Your task to perform on an android device: turn off translation in the chrome app Image 0: 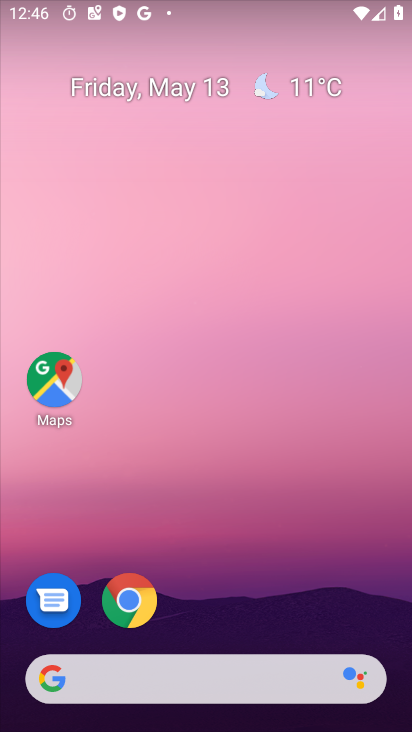
Step 0: drag from (169, 620) to (280, 317)
Your task to perform on an android device: turn off translation in the chrome app Image 1: 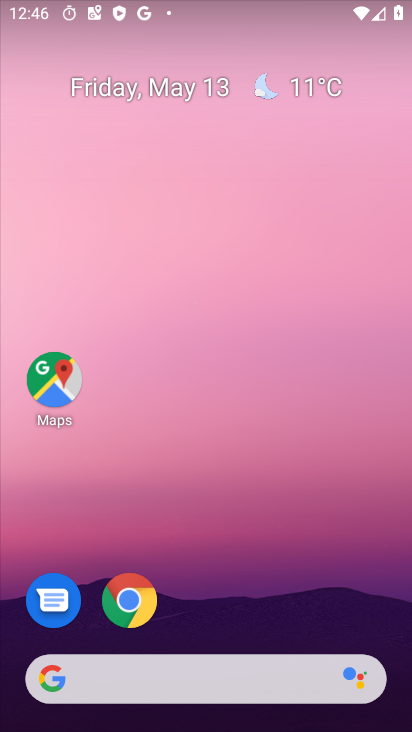
Step 1: drag from (257, 592) to (269, 279)
Your task to perform on an android device: turn off translation in the chrome app Image 2: 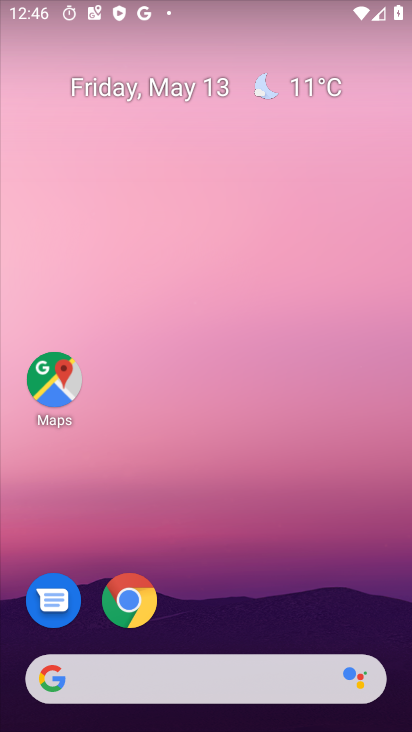
Step 2: drag from (37, 322) to (117, 23)
Your task to perform on an android device: turn off translation in the chrome app Image 3: 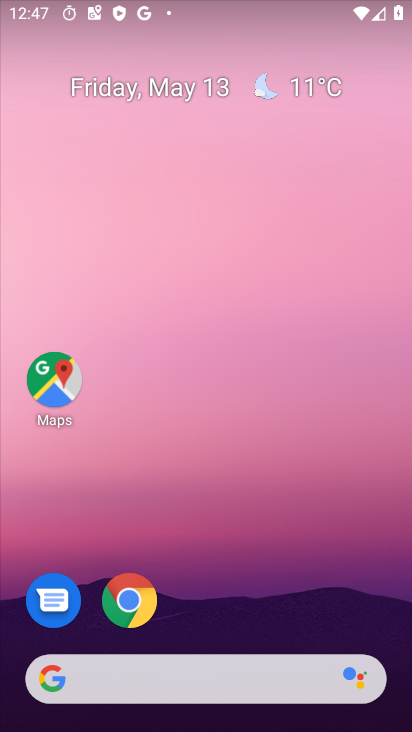
Step 3: press home button
Your task to perform on an android device: turn off translation in the chrome app Image 4: 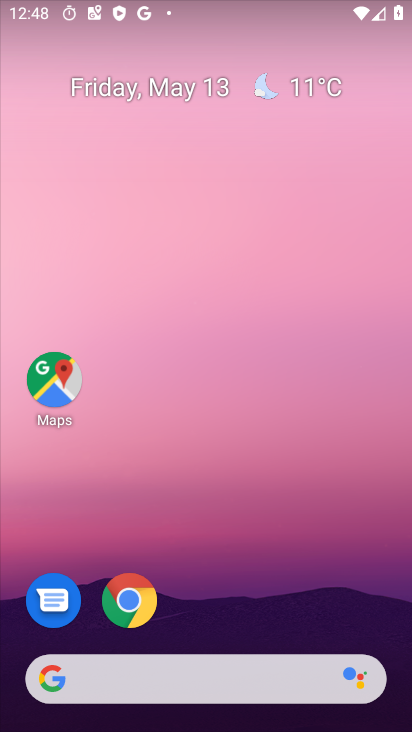
Step 4: drag from (149, 213) to (197, 122)
Your task to perform on an android device: turn off translation in the chrome app Image 5: 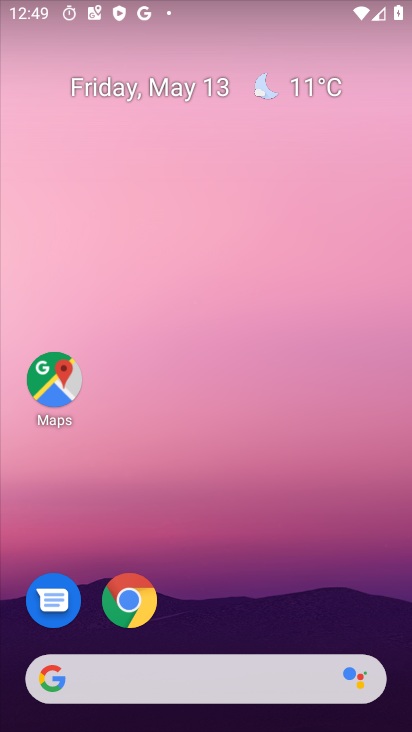
Step 5: drag from (197, 568) to (240, 278)
Your task to perform on an android device: turn off translation in the chrome app Image 6: 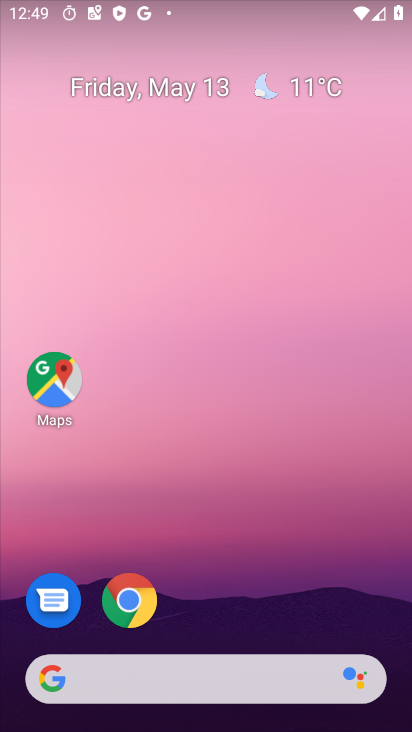
Step 6: click (127, 598)
Your task to perform on an android device: turn off translation in the chrome app Image 7: 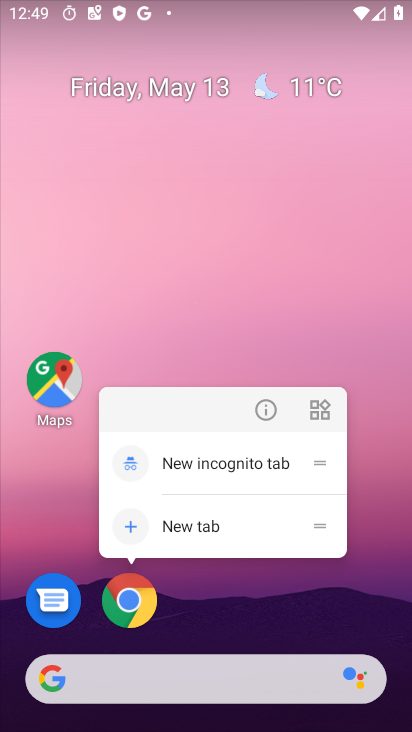
Step 7: click (179, 518)
Your task to perform on an android device: turn off translation in the chrome app Image 8: 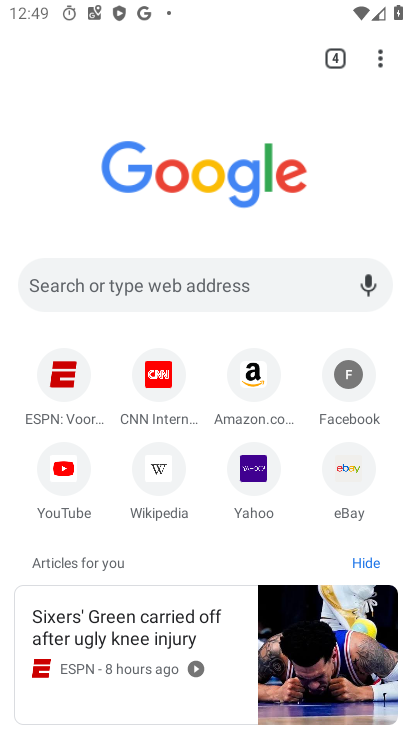
Step 8: click (390, 73)
Your task to perform on an android device: turn off translation in the chrome app Image 9: 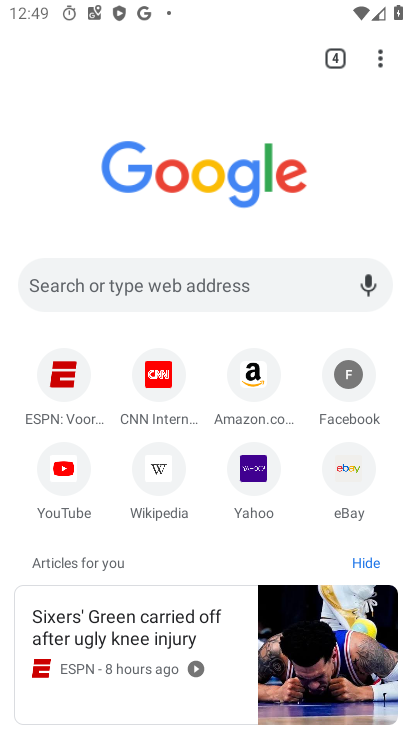
Step 9: click (379, 70)
Your task to perform on an android device: turn off translation in the chrome app Image 10: 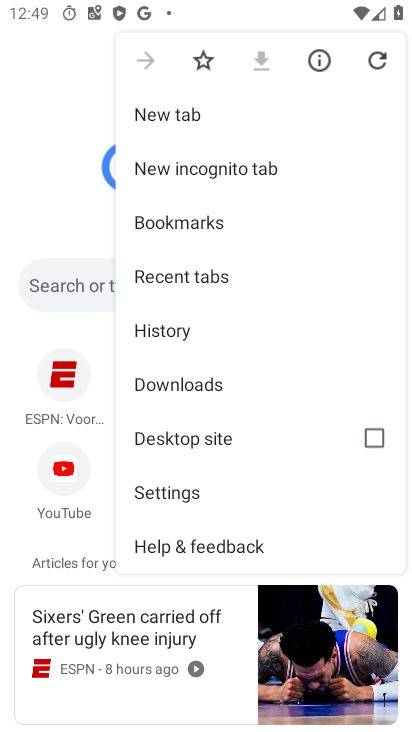
Step 10: click (190, 476)
Your task to perform on an android device: turn off translation in the chrome app Image 11: 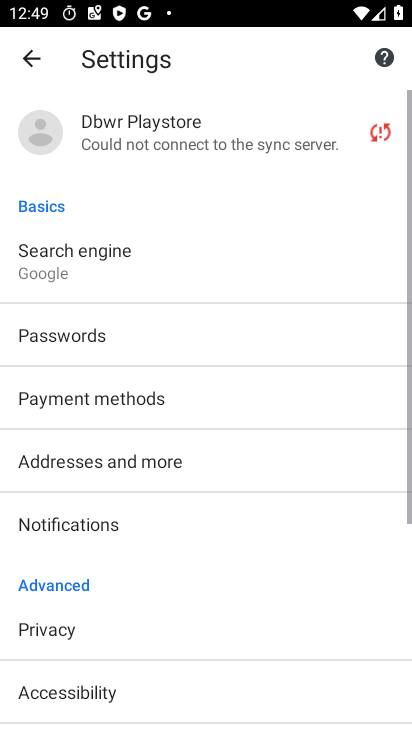
Step 11: drag from (208, 656) to (245, 148)
Your task to perform on an android device: turn off translation in the chrome app Image 12: 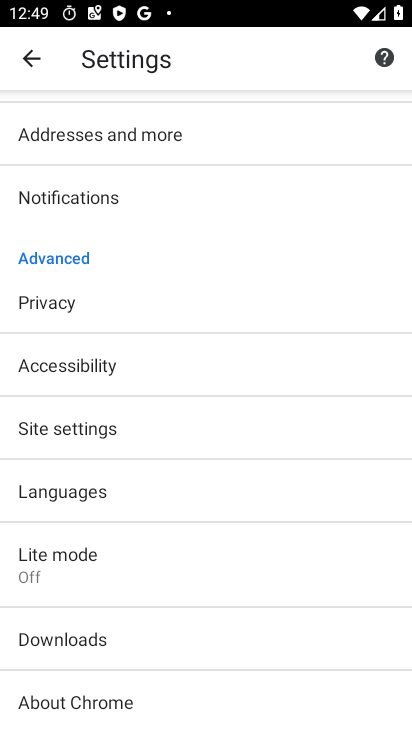
Step 12: click (152, 418)
Your task to perform on an android device: turn off translation in the chrome app Image 13: 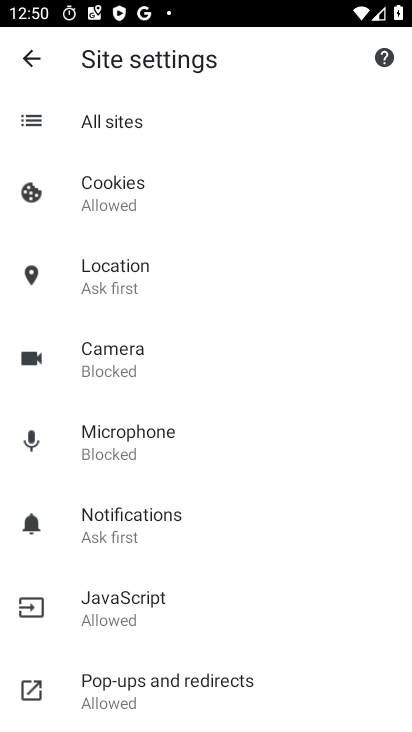
Step 13: click (29, 50)
Your task to perform on an android device: turn off translation in the chrome app Image 14: 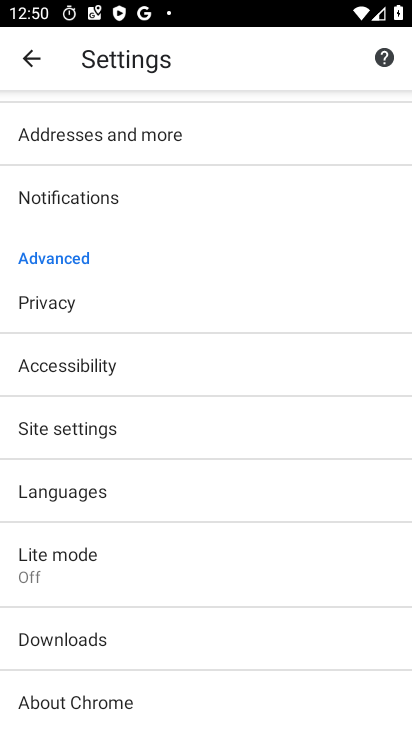
Step 14: click (156, 487)
Your task to perform on an android device: turn off translation in the chrome app Image 15: 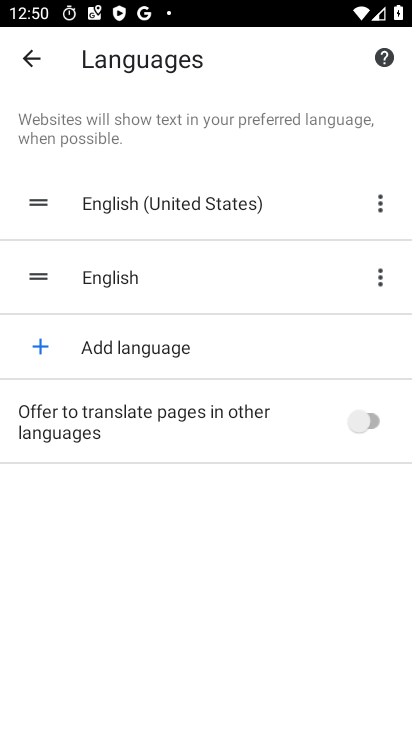
Step 15: task complete